Your task to perform on an android device: Go to notification settings Image 0: 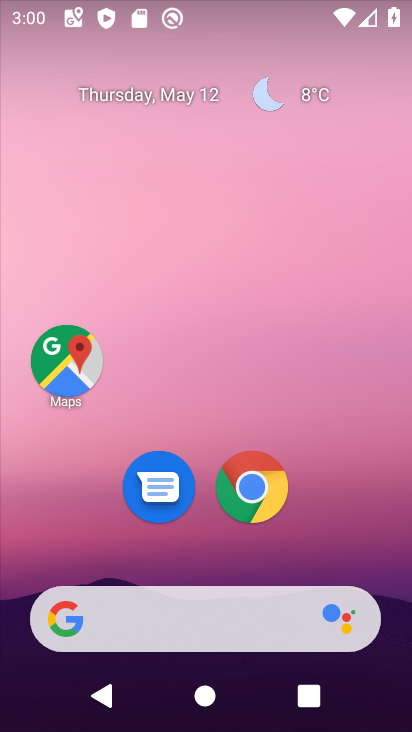
Step 0: drag from (356, 489) to (336, 100)
Your task to perform on an android device: Go to notification settings Image 1: 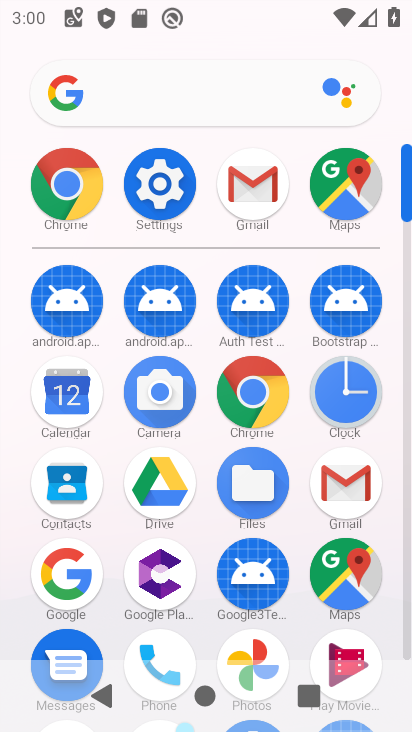
Step 1: click (157, 178)
Your task to perform on an android device: Go to notification settings Image 2: 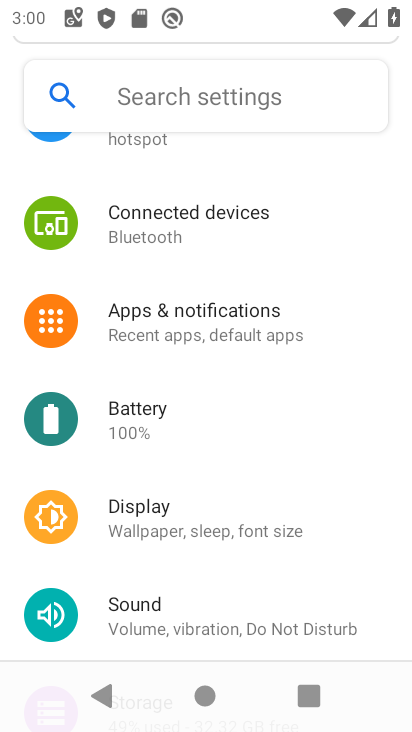
Step 2: drag from (213, 200) to (181, 546)
Your task to perform on an android device: Go to notification settings Image 3: 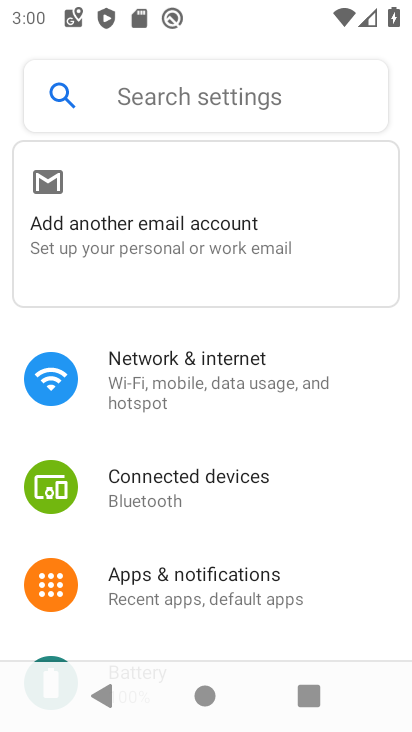
Step 3: drag from (173, 509) to (176, 354)
Your task to perform on an android device: Go to notification settings Image 4: 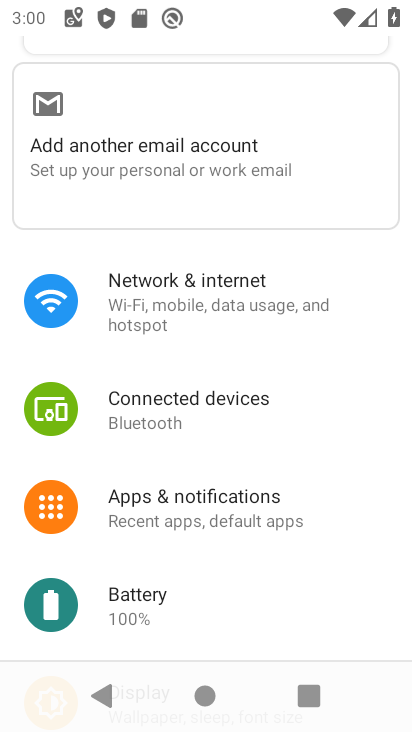
Step 4: click (124, 488)
Your task to perform on an android device: Go to notification settings Image 5: 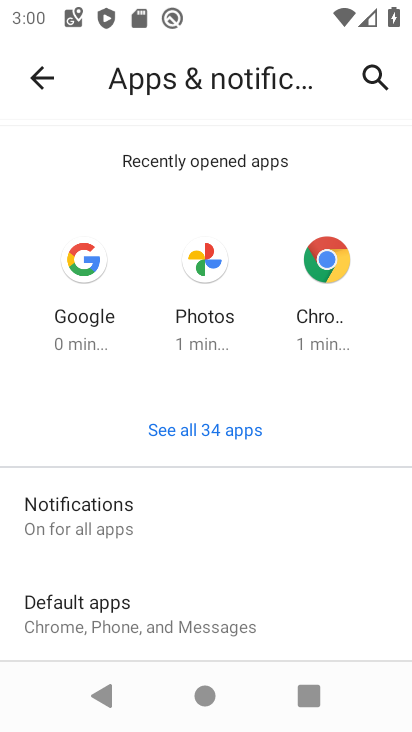
Step 5: click (115, 513)
Your task to perform on an android device: Go to notification settings Image 6: 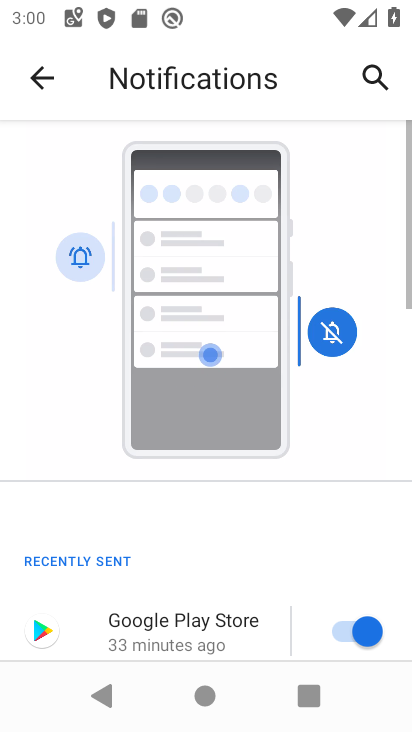
Step 6: task complete